Your task to perform on an android device: delete browsing data in the chrome app Image 0: 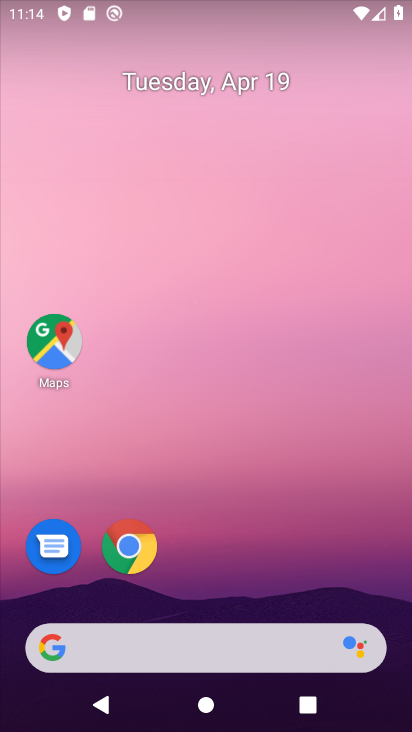
Step 0: drag from (245, 582) to (256, 70)
Your task to perform on an android device: delete browsing data in the chrome app Image 1: 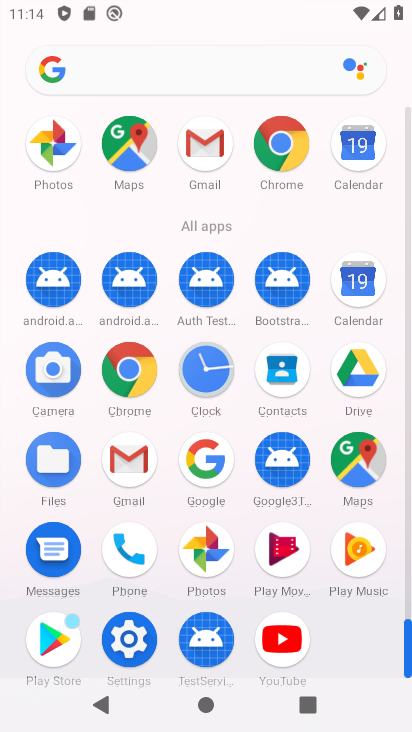
Step 1: click (122, 369)
Your task to perform on an android device: delete browsing data in the chrome app Image 2: 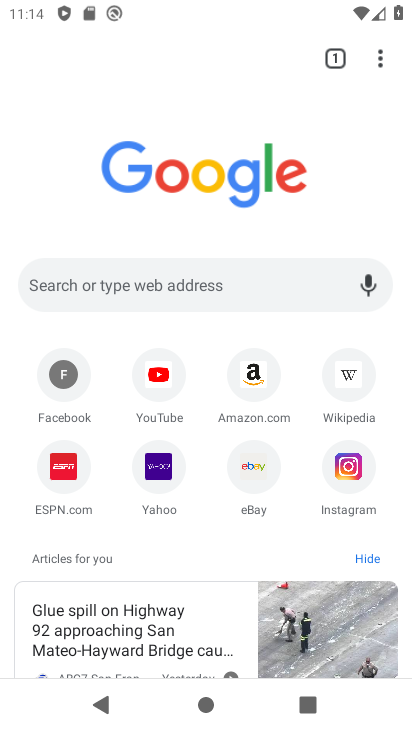
Step 2: drag from (379, 56) to (179, 511)
Your task to perform on an android device: delete browsing data in the chrome app Image 3: 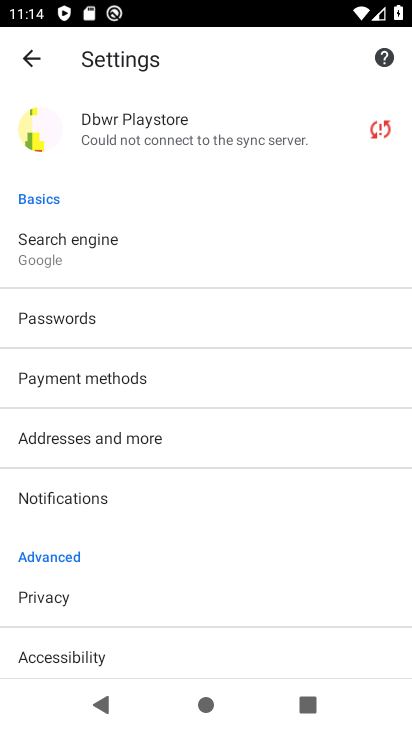
Step 3: click (62, 596)
Your task to perform on an android device: delete browsing data in the chrome app Image 4: 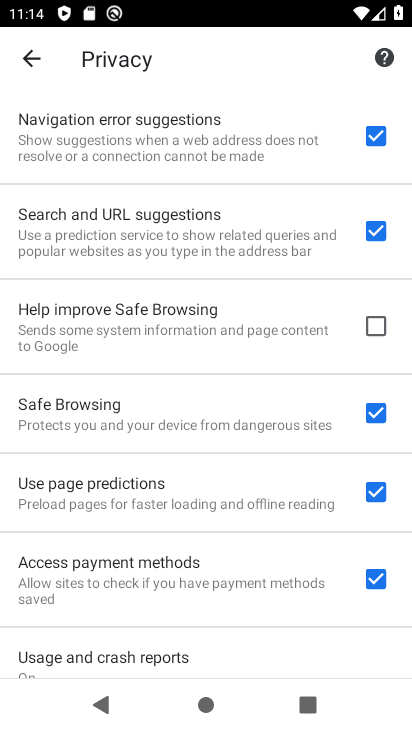
Step 4: drag from (304, 611) to (267, 125)
Your task to perform on an android device: delete browsing data in the chrome app Image 5: 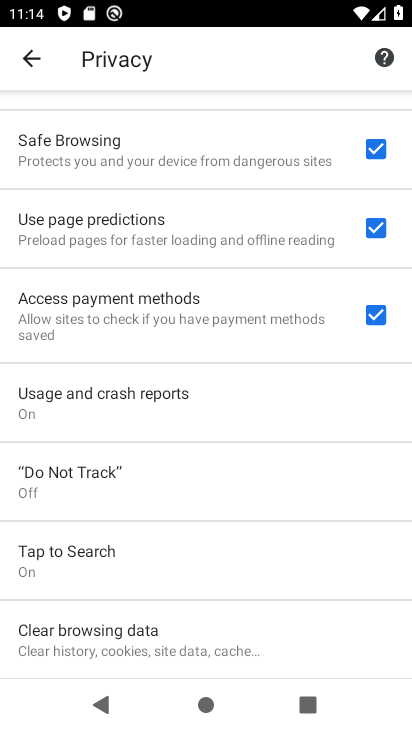
Step 5: drag from (249, 599) to (251, 263)
Your task to perform on an android device: delete browsing data in the chrome app Image 6: 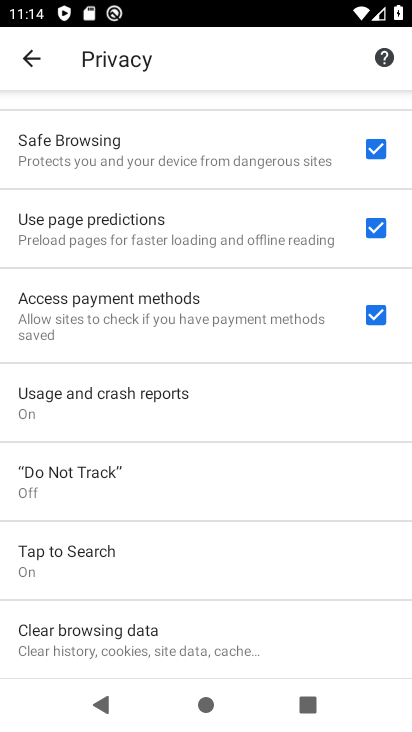
Step 6: click (106, 633)
Your task to perform on an android device: delete browsing data in the chrome app Image 7: 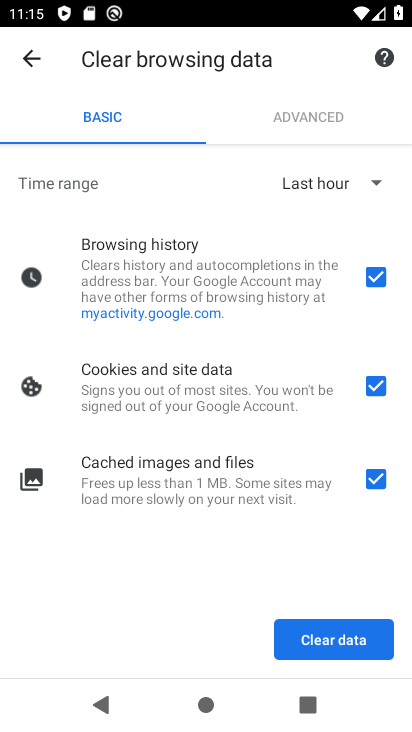
Step 7: click (342, 635)
Your task to perform on an android device: delete browsing data in the chrome app Image 8: 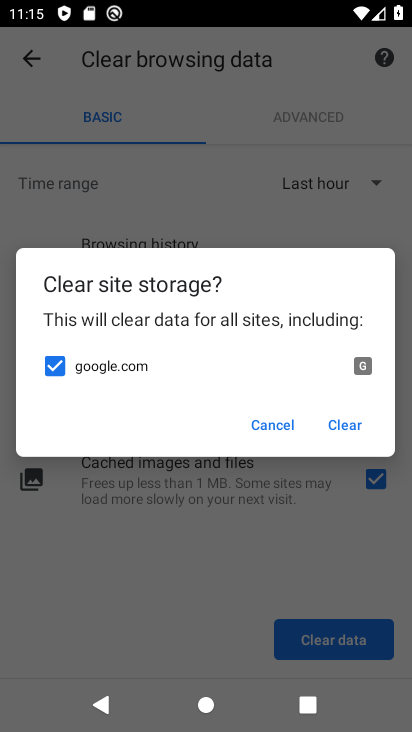
Step 8: click (268, 419)
Your task to perform on an android device: delete browsing data in the chrome app Image 9: 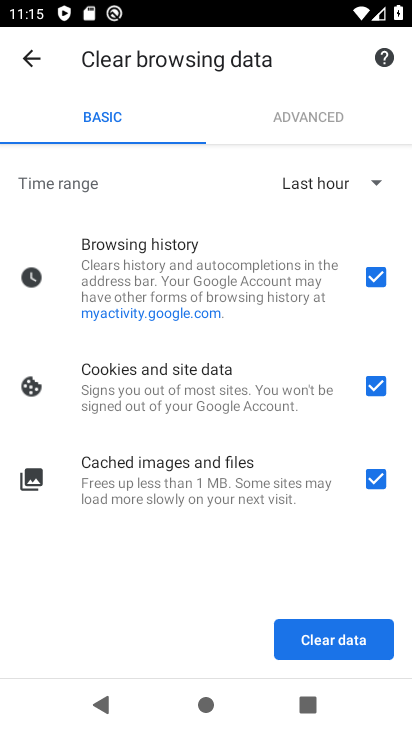
Step 9: click (372, 383)
Your task to perform on an android device: delete browsing data in the chrome app Image 10: 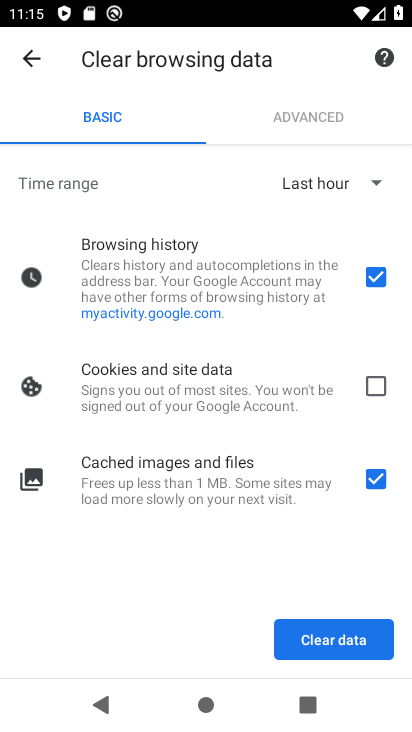
Step 10: click (372, 383)
Your task to perform on an android device: delete browsing data in the chrome app Image 11: 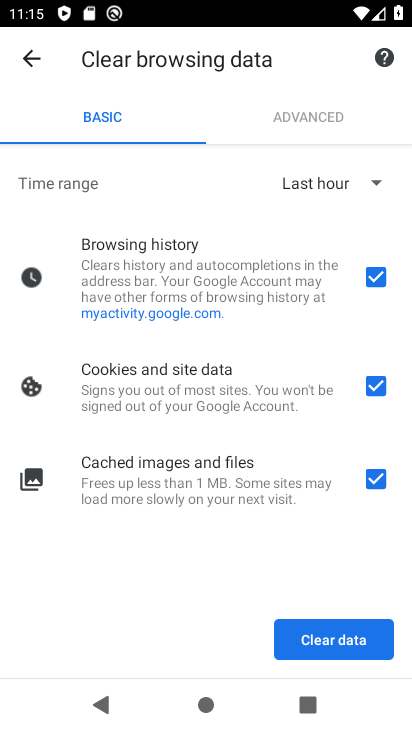
Step 11: click (371, 276)
Your task to perform on an android device: delete browsing data in the chrome app Image 12: 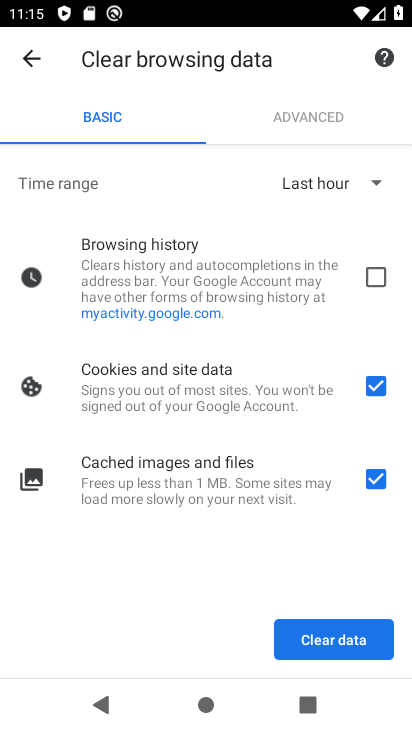
Step 12: click (371, 276)
Your task to perform on an android device: delete browsing data in the chrome app Image 13: 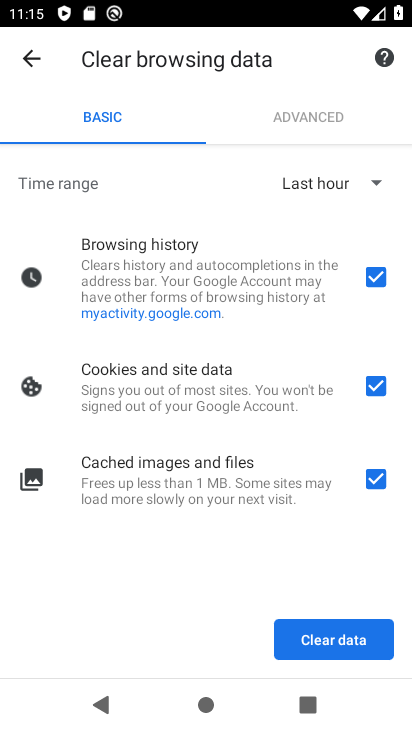
Step 13: click (356, 633)
Your task to perform on an android device: delete browsing data in the chrome app Image 14: 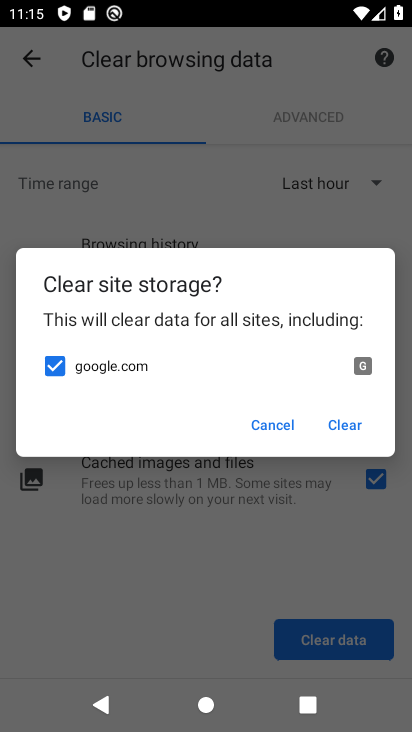
Step 14: click (341, 424)
Your task to perform on an android device: delete browsing data in the chrome app Image 15: 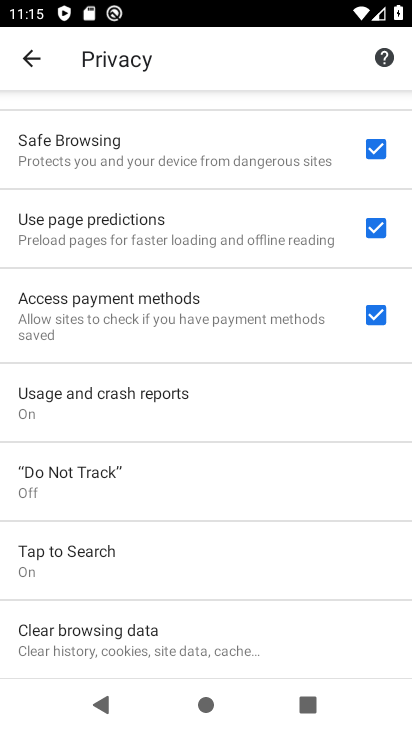
Step 15: task complete